Your task to perform on an android device: Go to CNN.com Image 0: 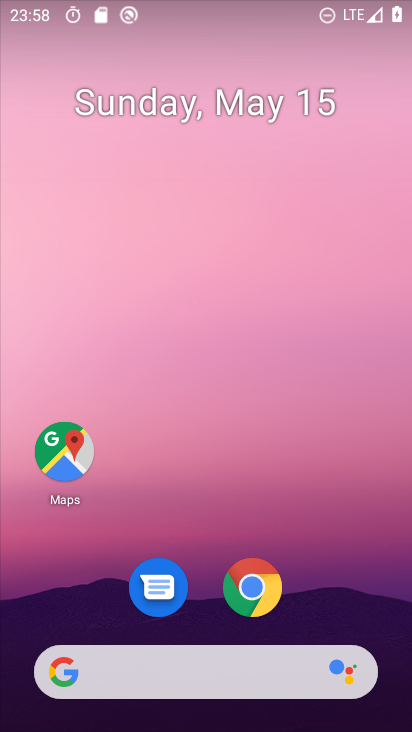
Step 0: click (245, 597)
Your task to perform on an android device: Go to CNN.com Image 1: 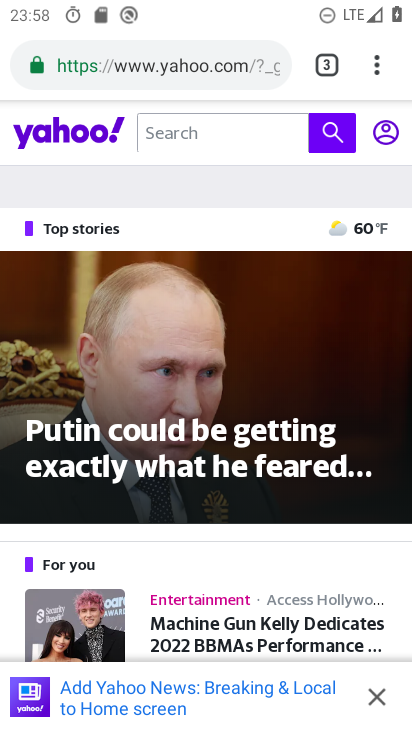
Step 1: click (320, 56)
Your task to perform on an android device: Go to CNN.com Image 2: 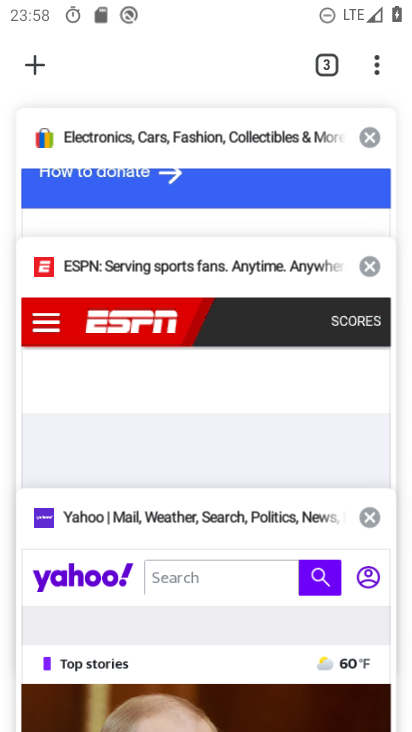
Step 2: click (38, 66)
Your task to perform on an android device: Go to CNN.com Image 3: 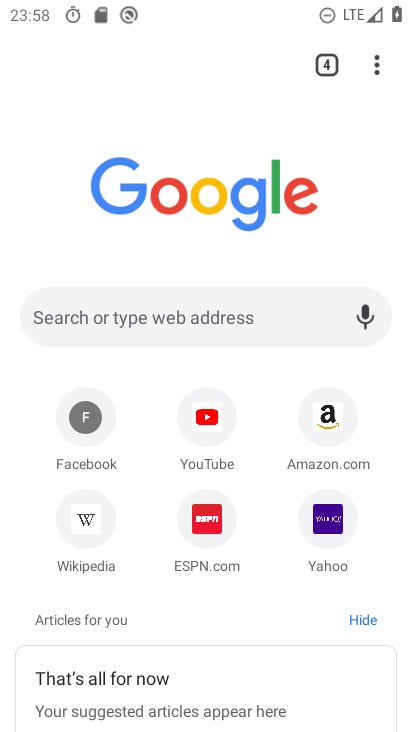
Step 3: click (139, 318)
Your task to perform on an android device: Go to CNN.com Image 4: 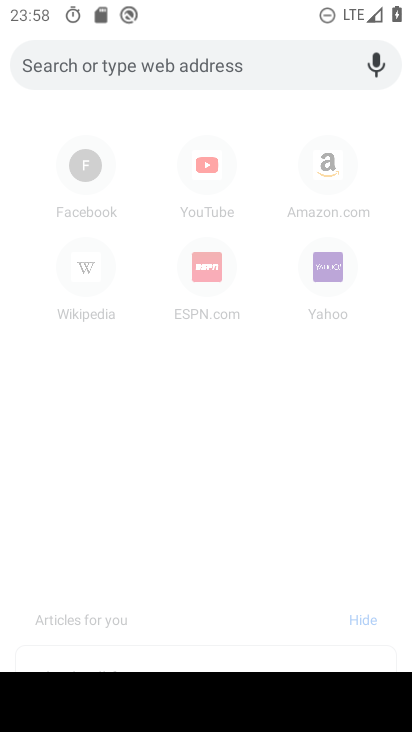
Step 4: type "CNN.com"
Your task to perform on an android device: Go to CNN.com Image 5: 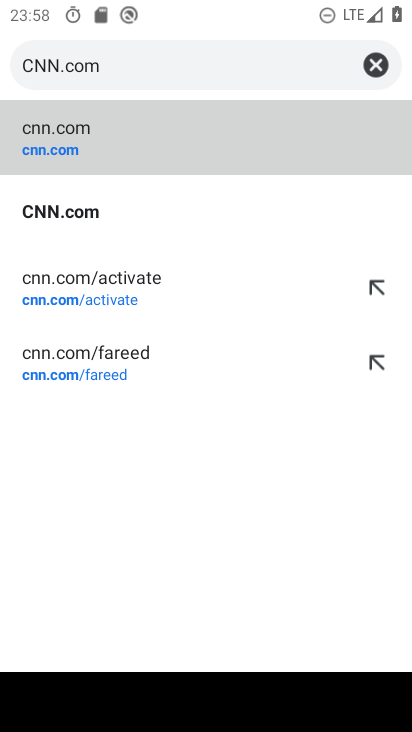
Step 5: click (202, 146)
Your task to perform on an android device: Go to CNN.com Image 6: 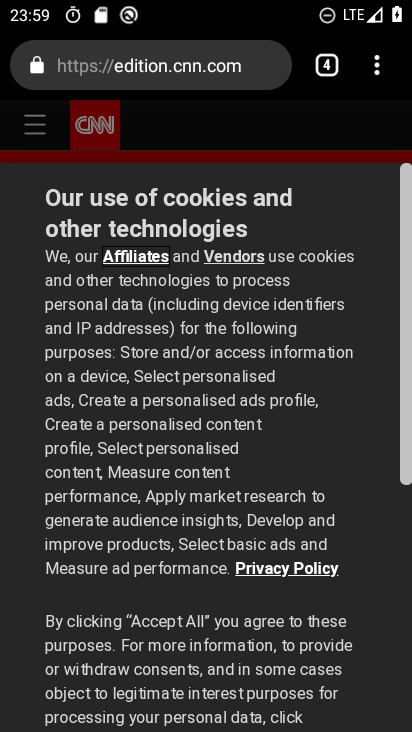
Step 6: task complete